Your task to perform on an android device: Open Yahoo.com Image 0: 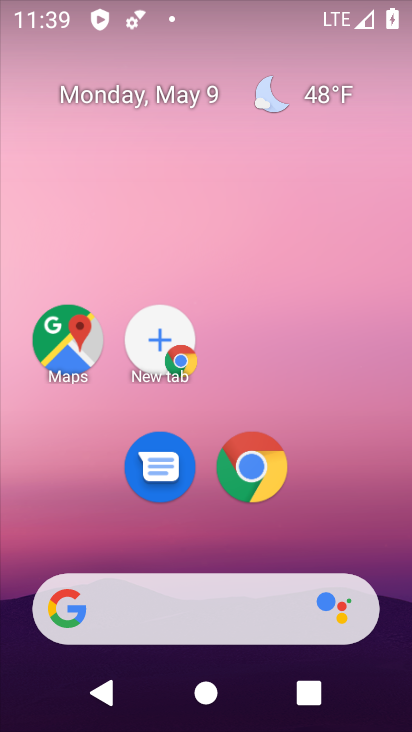
Step 0: drag from (399, 613) to (40, 21)
Your task to perform on an android device: Open Yahoo.com Image 1: 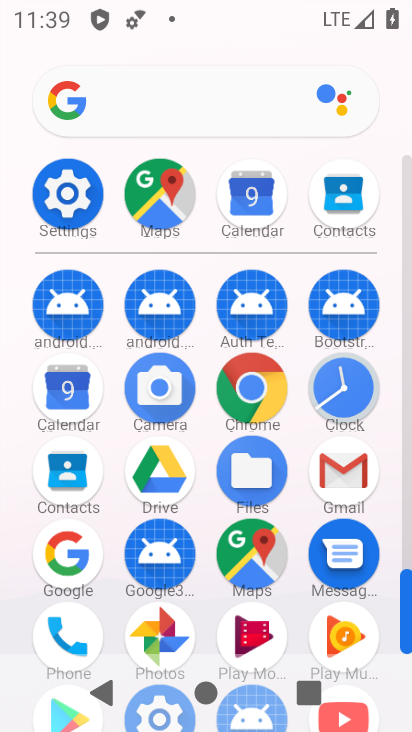
Step 1: click (259, 393)
Your task to perform on an android device: Open Yahoo.com Image 2: 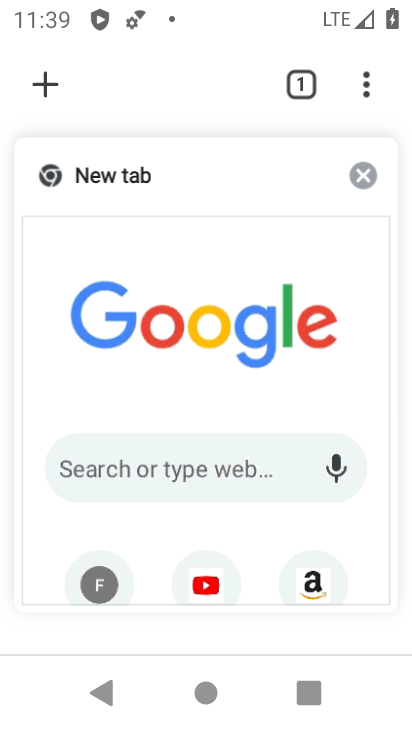
Step 2: click (366, 89)
Your task to perform on an android device: Open Yahoo.com Image 3: 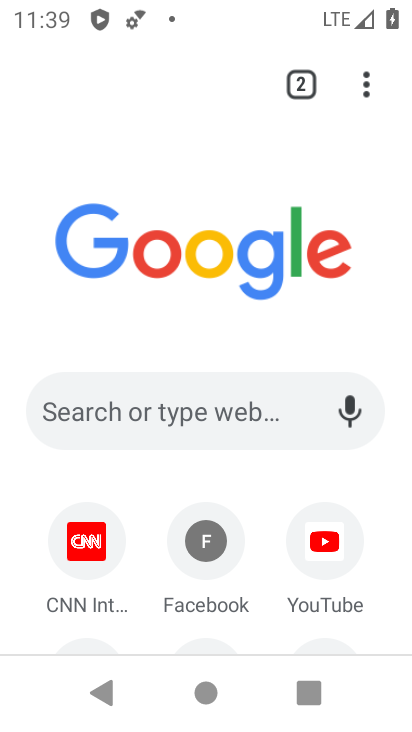
Step 3: drag from (209, 499) to (154, 40)
Your task to perform on an android device: Open Yahoo.com Image 4: 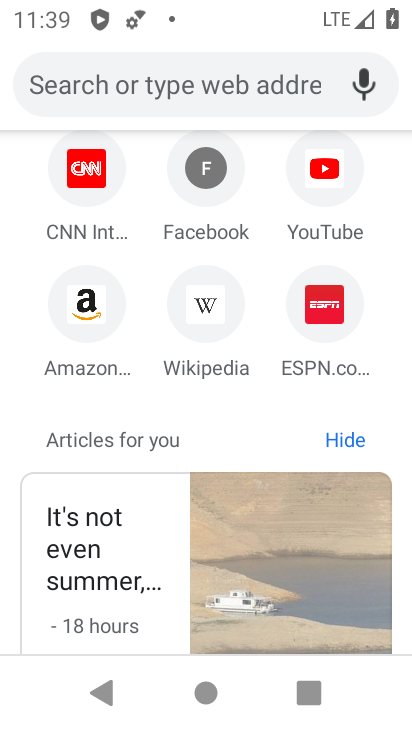
Step 4: drag from (206, 450) to (225, 21)
Your task to perform on an android device: Open Yahoo.com Image 5: 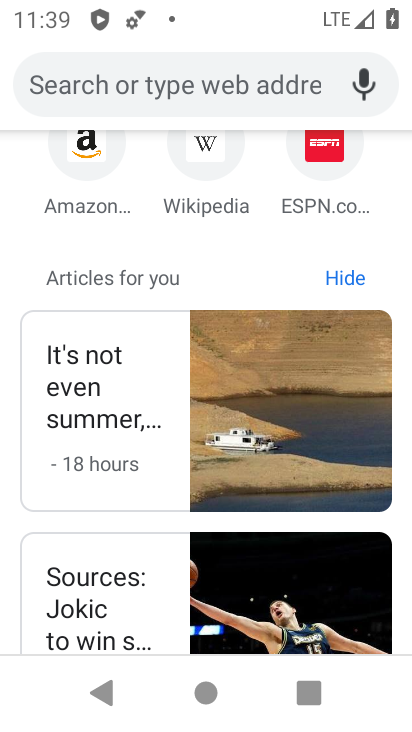
Step 5: drag from (187, 231) to (235, 522)
Your task to perform on an android device: Open Yahoo.com Image 6: 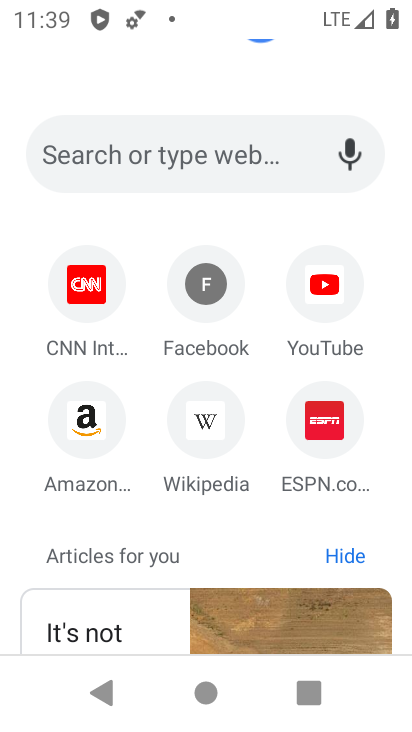
Step 6: drag from (277, 241) to (232, 627)
Your task to perform on an android device: Open Yahoo.com Image 7: 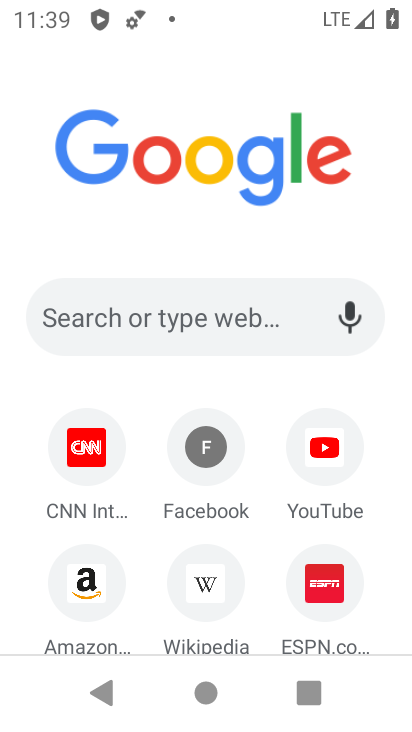
Step 7: click (53, 314)
Your task to perform on an android device: Open Yahoo.com Image 8: 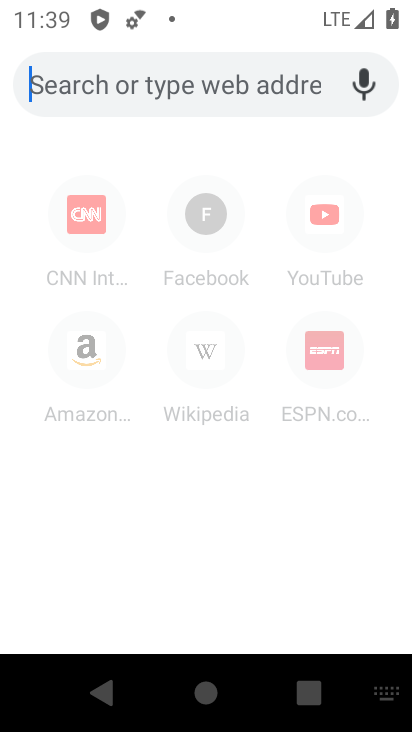
Step 8: type "yahoo.com"
Your task to perform on an android device: Open Yahoo.com Image 9: 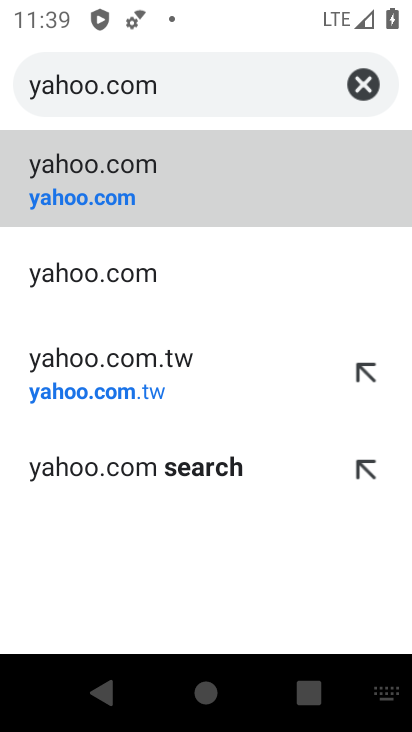
Step 9: click (79, 183)
Your task to perform on an android device: Open Yahoo.com Image 10: 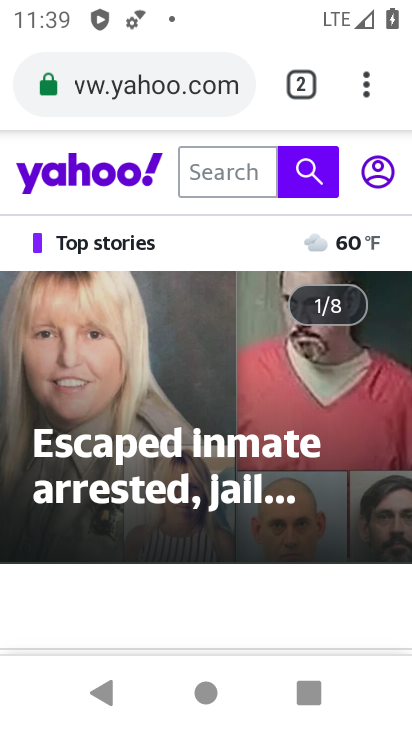
Step 10: task complete